Your task to perform on an android device: change the clock style Image 0: 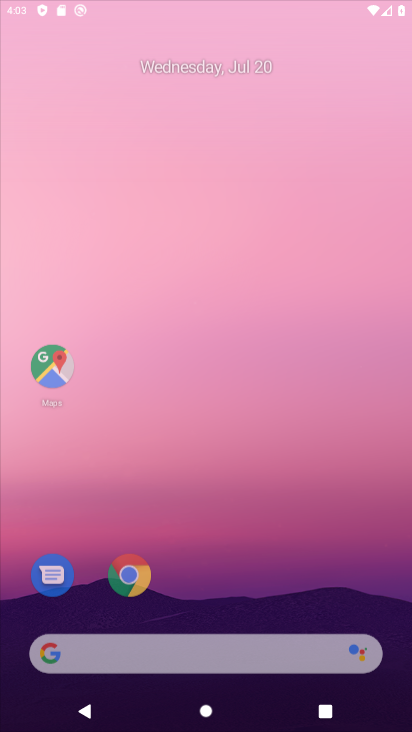
Step 0: press home button
Your task to perform on an android device: change the clock style Image 1: 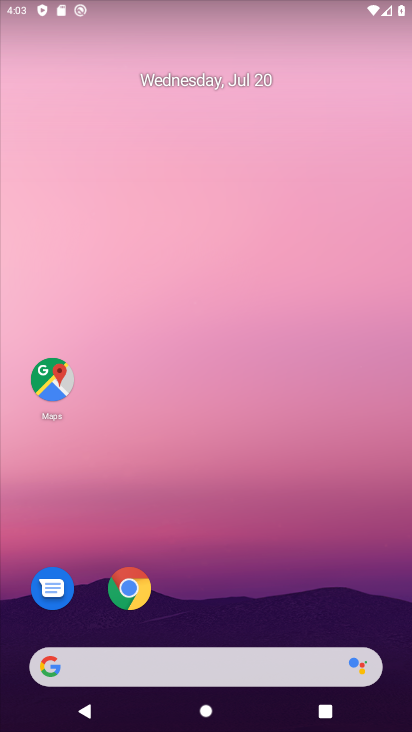
Step 1: drag from (222, 621) to (266, 181)
Your task to perform on an android device: change the clock style Image 2: 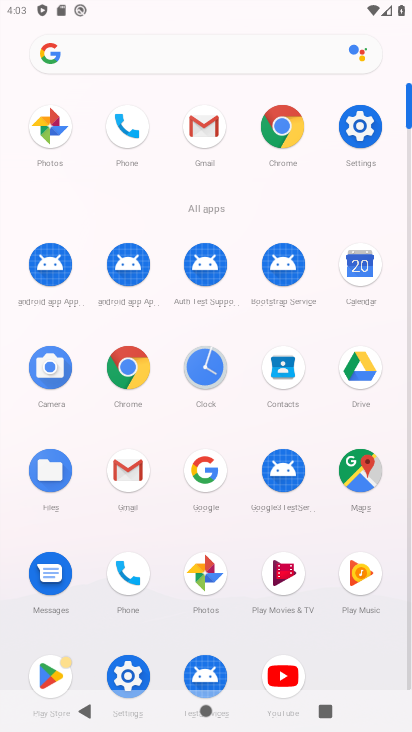
Step 2: click (207, 355)
Your task to perform on an android device: change the clock style Image 3: 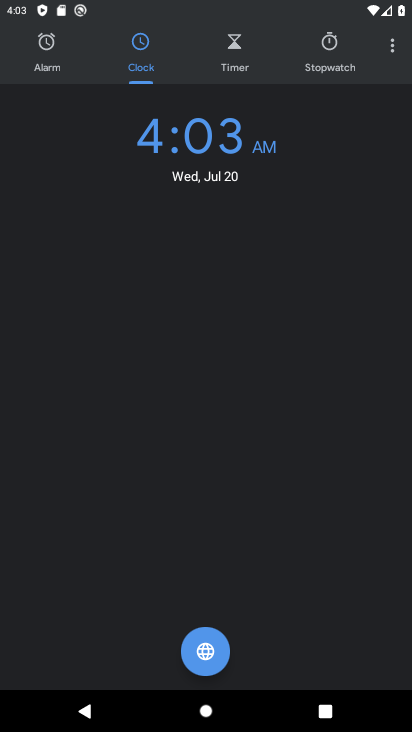
Step 3: click (393, 49)
Your task to perform on an android device: change the clock style Image 4: 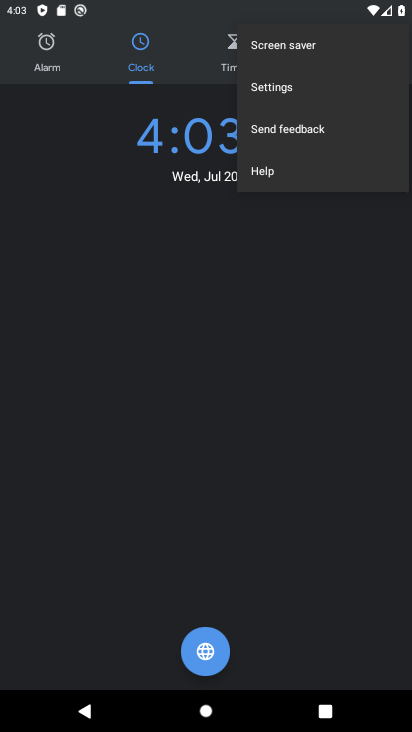
Step 4: click (291, 91)
Your task to perform on an android device: change the clock style Image 5: 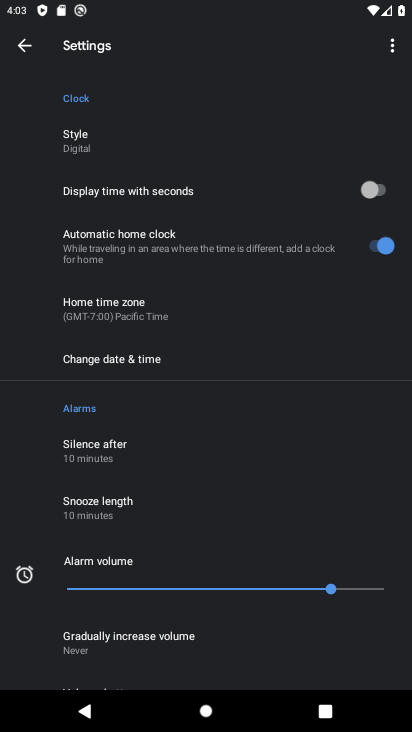
Step 5: click (86, 142)
Your task to perform on an android device: change the clock style Image 6: 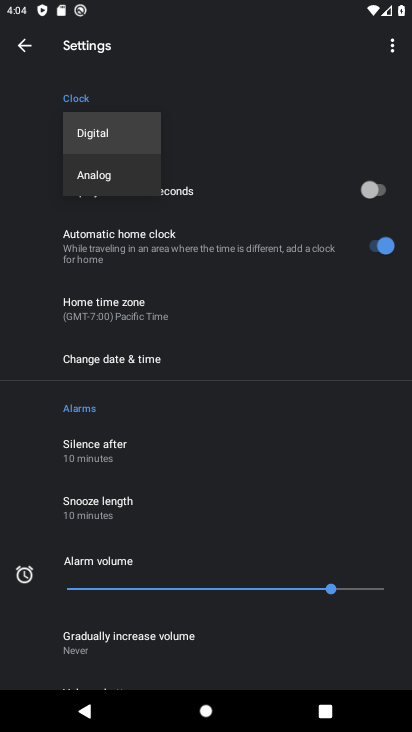
Step 6: click (111, 182)
Your task to perform on an android device: change the clock style Image 7: 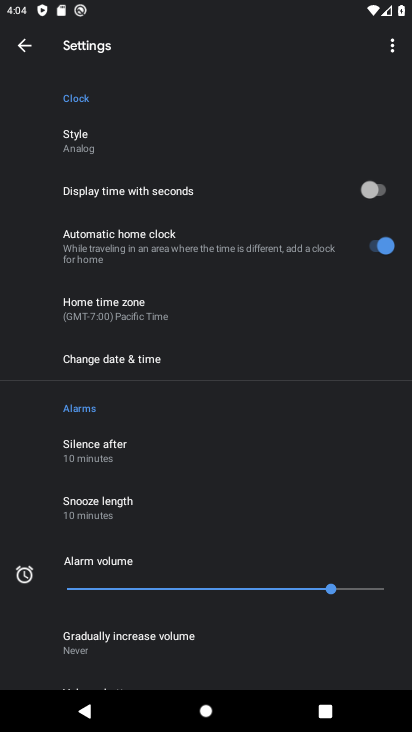
Step 7: task complete